Your task to perform on an android device: turn off notifications in google photos Image 0: 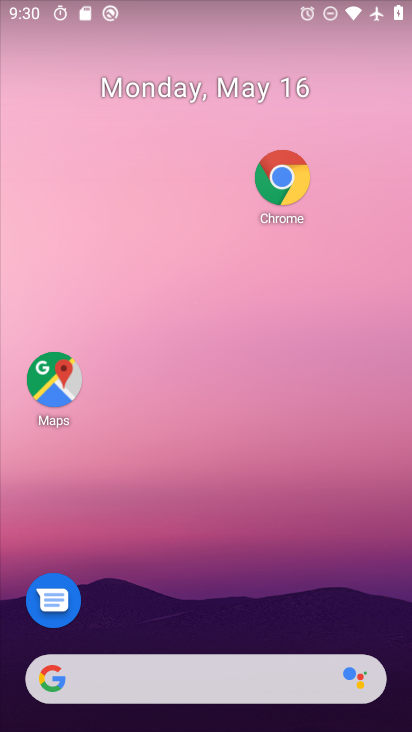
Step 0: drag from (246, 682) to (371, 317)
Your task to perform on an android device: turn off notifications in google photos Image 1: 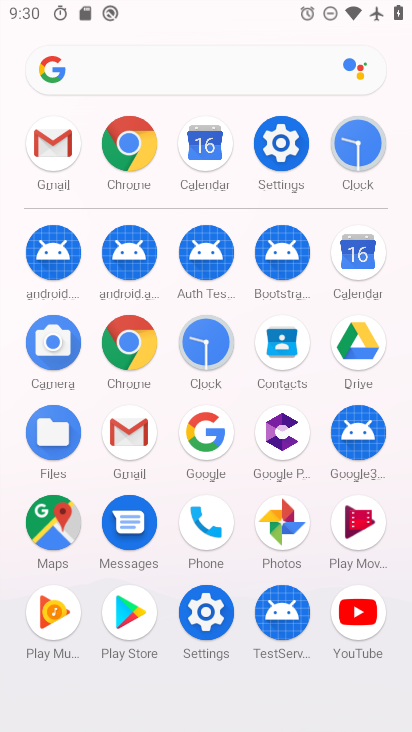
Step 1: click (284, 518)
Your task to perform on an android device: turn off notifications in google photos Image 2: 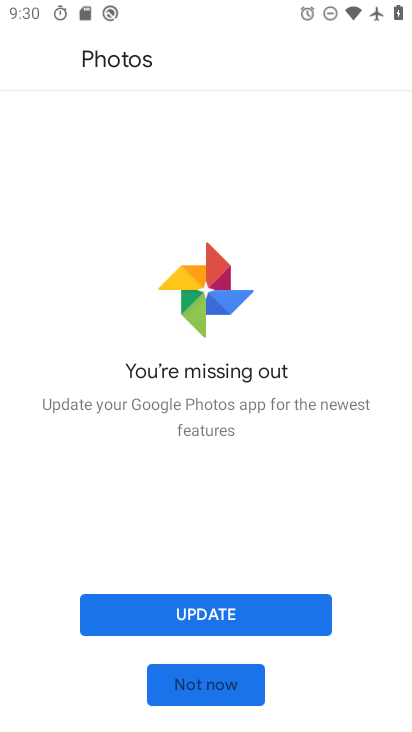
Step 2: click (231, 619)
Your task to perform on an android device: turn off notifications in google photos Image 3: 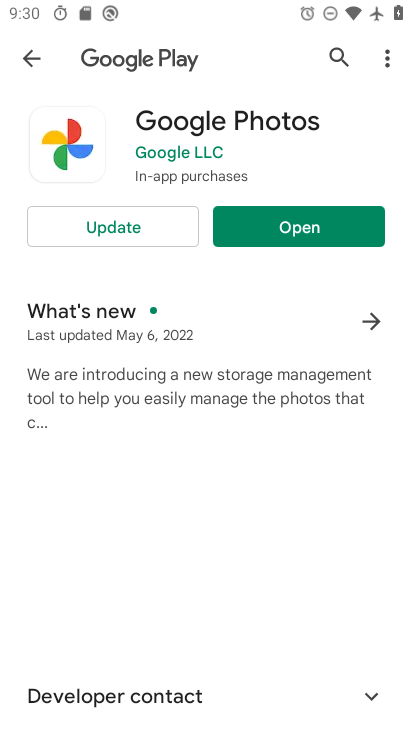
Step 3: click (146, 226)
Your task to perform on an android device: turn off notifications in google photos Image 4: 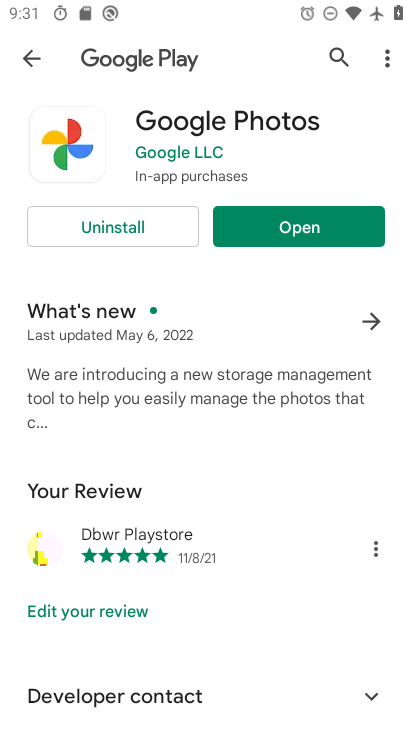
Step 4: click (295, 228)
Your task to perform on an android device: turn off notifications in google photos Image 5: 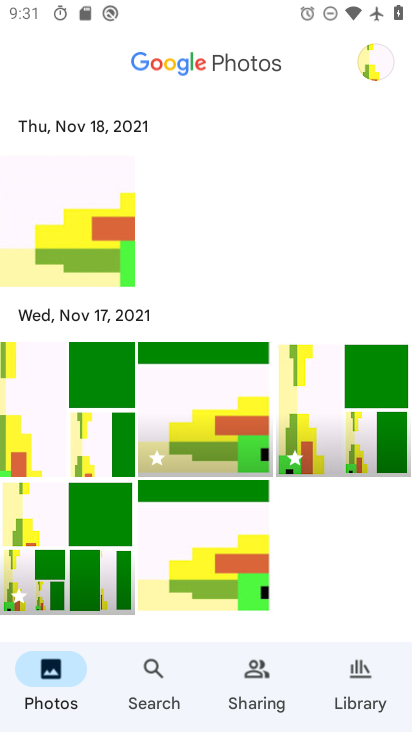
Step 5: click (368, 58)
Your task to perform on an android device: turn off notifications in google photos Image 6: 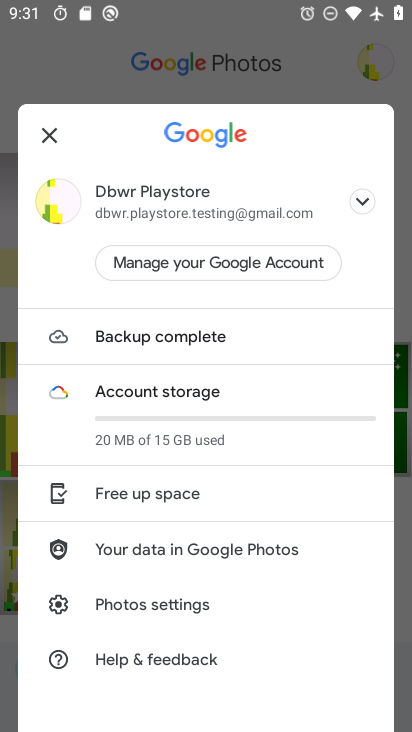
Step 6: click (199, 607)
Your task to perform on an android device: turn off notifications in google photos Image 7: 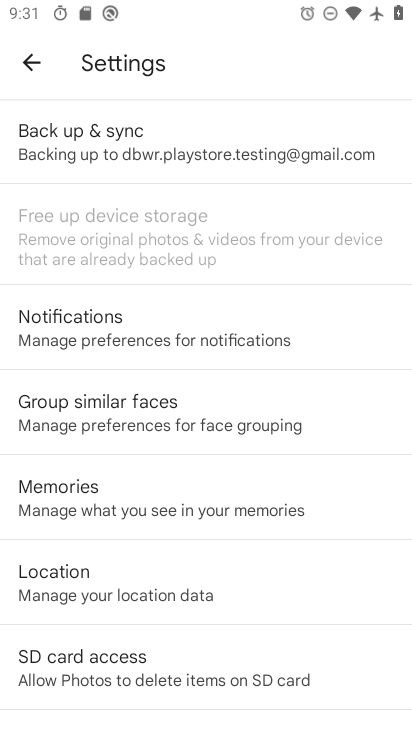
Step 7: click (184, 342)
Your task to perform on an android device: turn off notifications in google photos Image 8: 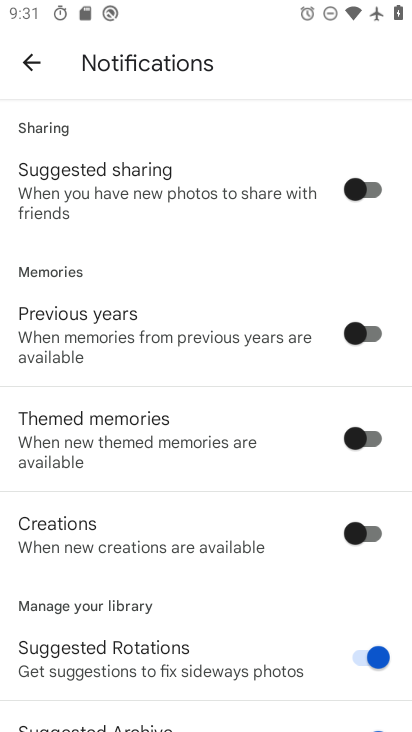
Step 8: drag from (217, 626) to (238, 236)
Your task to perform on an android device: turn off notifications in google photos Image 9: 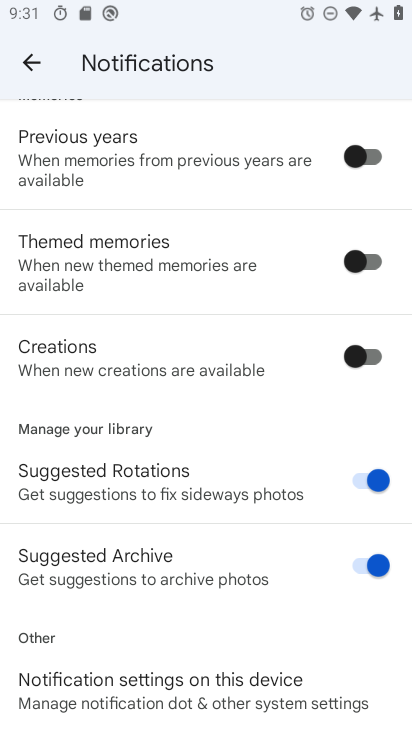
Step 9: click (170, 684)
Your task to perform on an android device: turn off notifications in google photos Image 10: 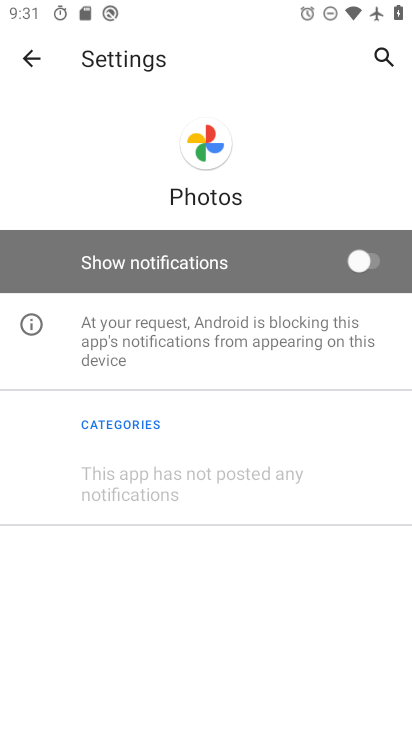
Step 10: task complete